Your task to perform on an android device: see tabs open on other devices in the chrome app Image 0: 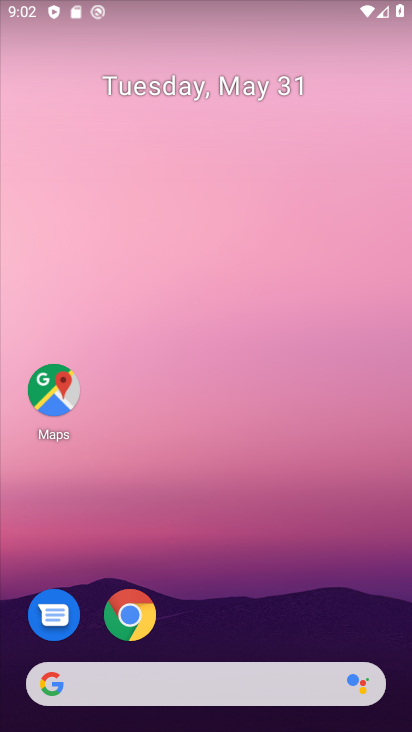
Step 0: click (131, 607)
Your task to perform on an android device: see tabs open on other devices in the chrome app Image 1: 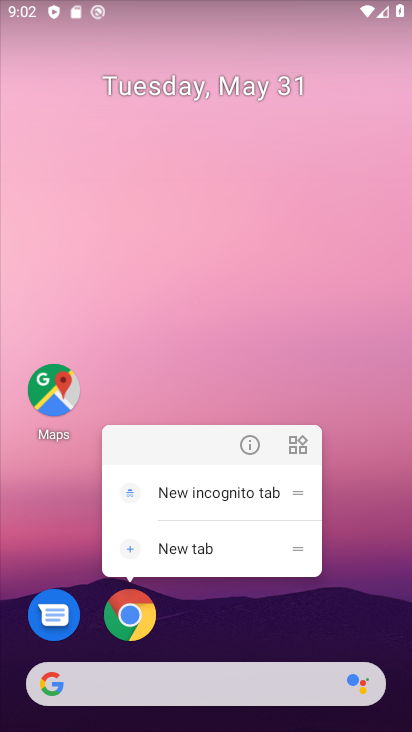
Step 1: click (116, 616)
Your task to perform on an android device: see tabs open on other devices in the chrome app Image 2: 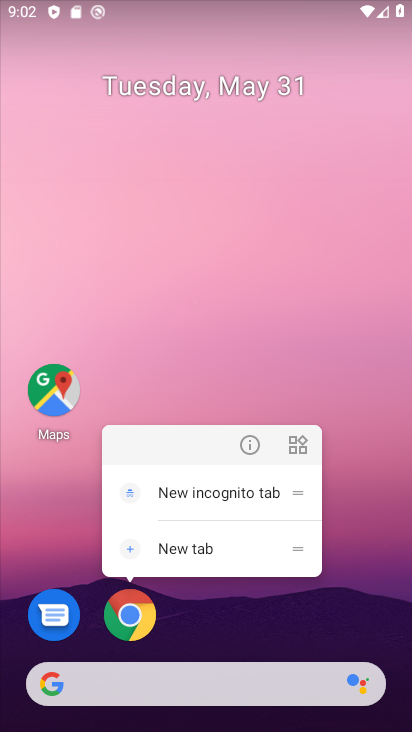
Step 2: click (116, 616)
Your task to perform on an android device: see tabs open on other devices in the chrome app Image 3: 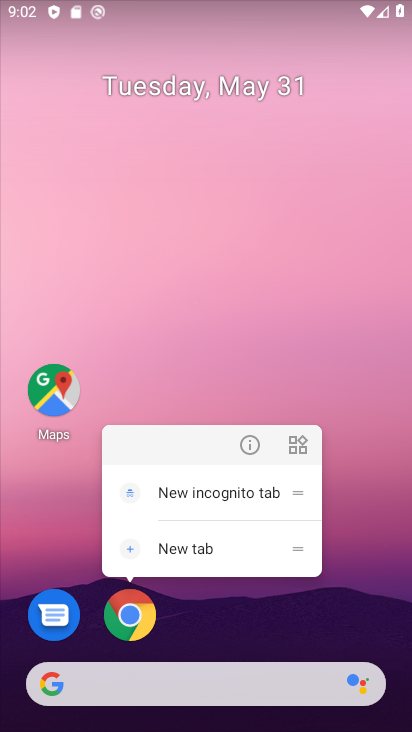
Step 3: click (116, 616)
Your task to perform on an android device: see tabs open on other devices in the chrome app Image 4: 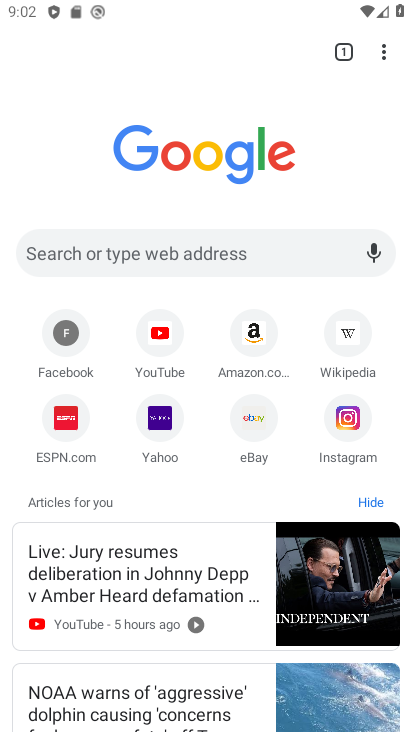
Step 4: click (382, 42)
Your task to perform on an android device: see tabs open on other devices in the chrome app Image 5: 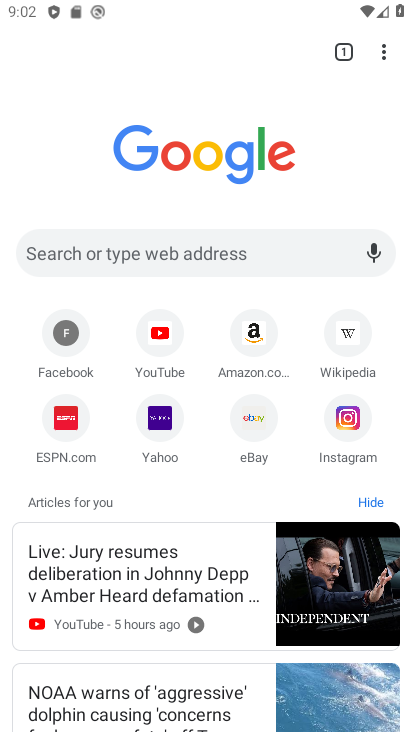
Step 5: click (378, 48)
Your task to perform on an android device: see tabs open on other devices in the chrome app Image 6: 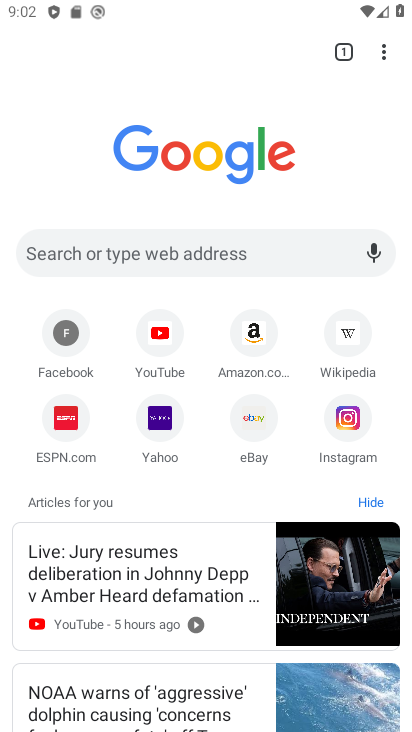
Step 6: drag from (383, 50) to (218, 252)
Your task to perform on an android device: see tabs open on other devices in the chrome app Image 7: 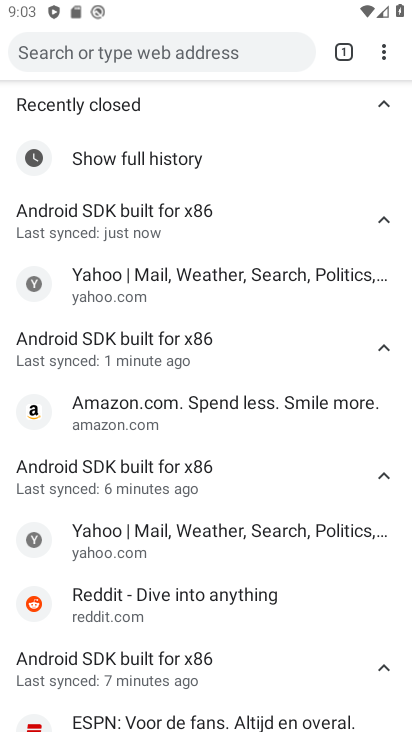
Step 7: drag from (143, 672) to (189, 27)
Your task to perform on an android device: see tabs open on other devices in the chrome app Image 8: 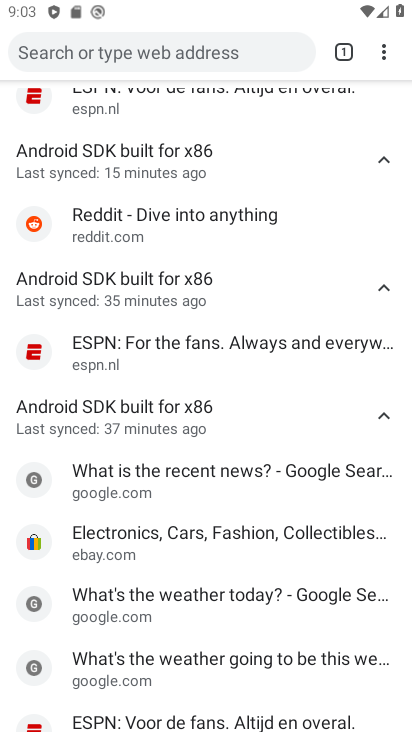
Step 8: drag from (87, 688) to (183, 75)
Your task to perform on an android device: see tabs open on other devices in the chrome app Image 9: 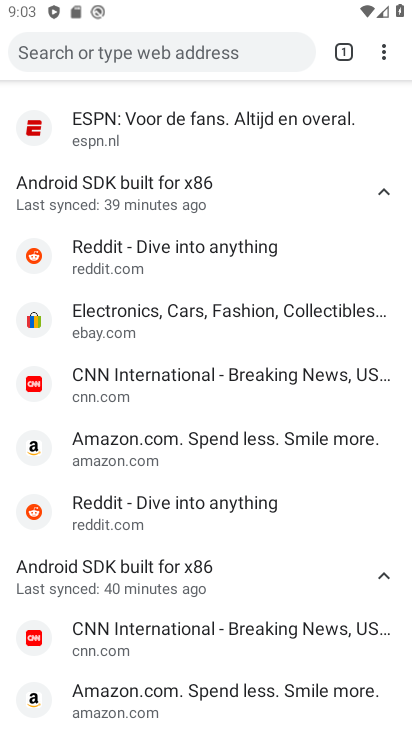
Step 9: drag from (79, 628) to (77, 591)
Your task to perform on an android device: see tabs open on other devices in the chrome app Image 10: 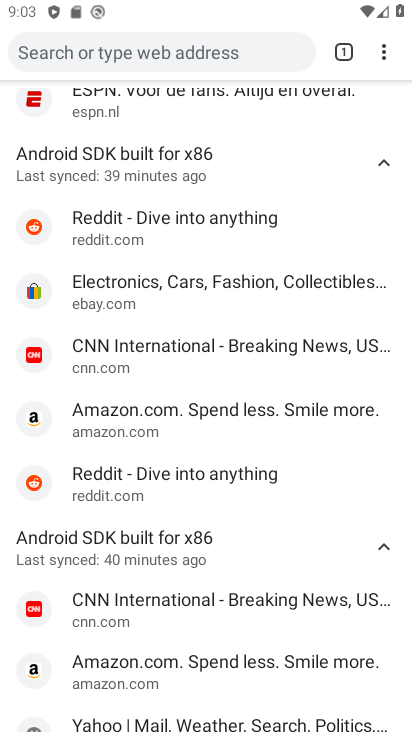
Step 10: click (376, 48)
Your task to perform on an android device: see tabs open on other devices in the chrome app Image 11: 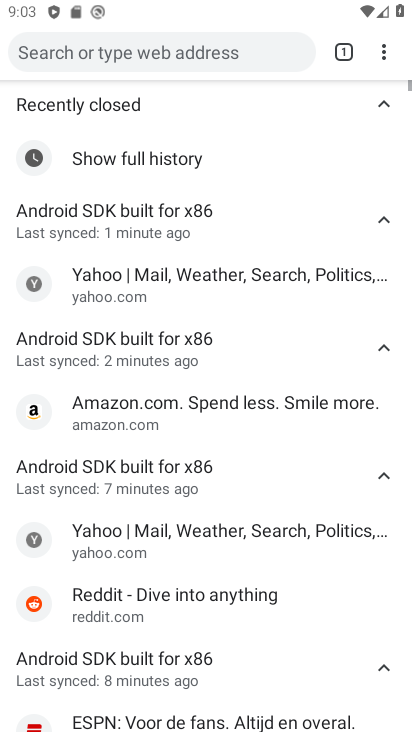
Step 11: click (380, 50)
Your task to perform on an android device: see tabs open on other devices in the chrome app Image 12: 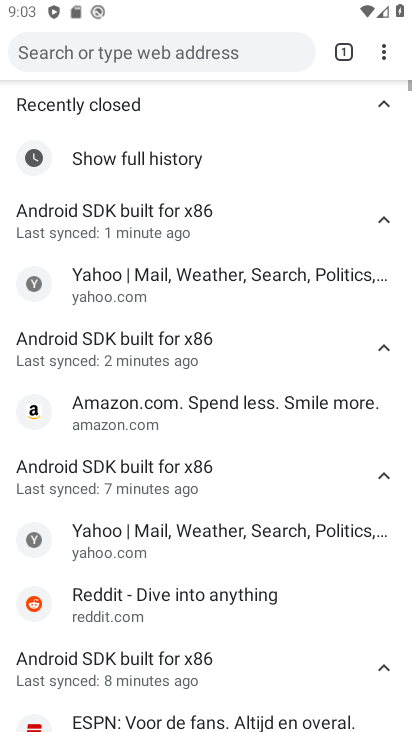
Step 12: task complete